Your task to perform on an android device: find photos in the google photos app Image 0: 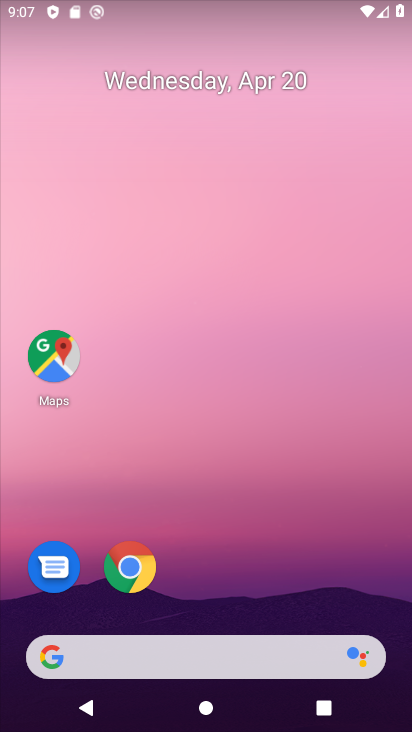
Step 0: drag from (248, 533) to (319, 31)
Your task to perform on an android device: find photos in the google photos app Image 1: 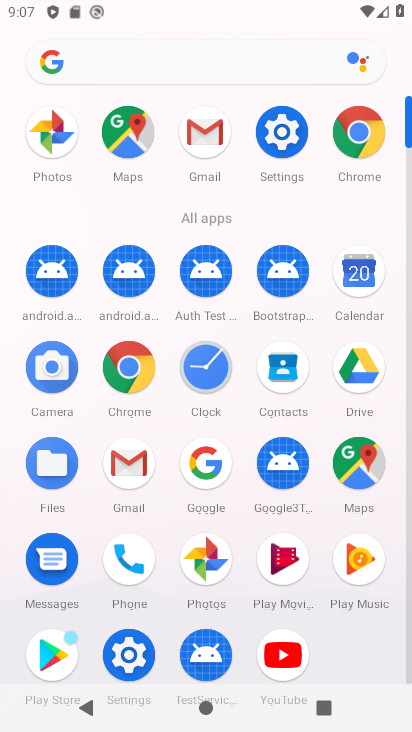
Step 1: click (213, 559)
Your task to perform on an android device: find photos in the google photos app Image 2: 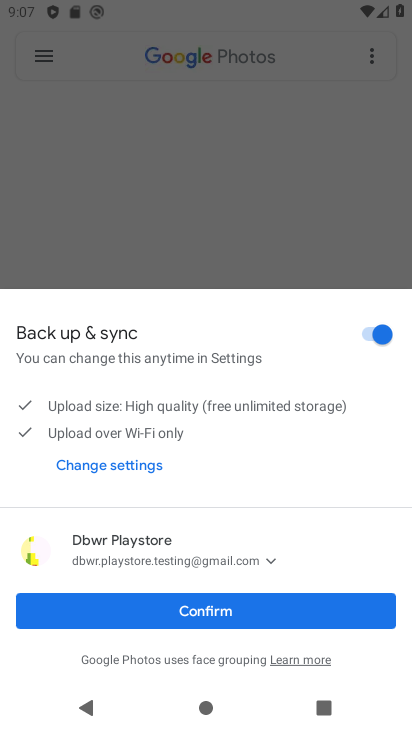
Step 2: click (223, 614)
Your task to perform on an android device: find photos in the google photos app Image 3: 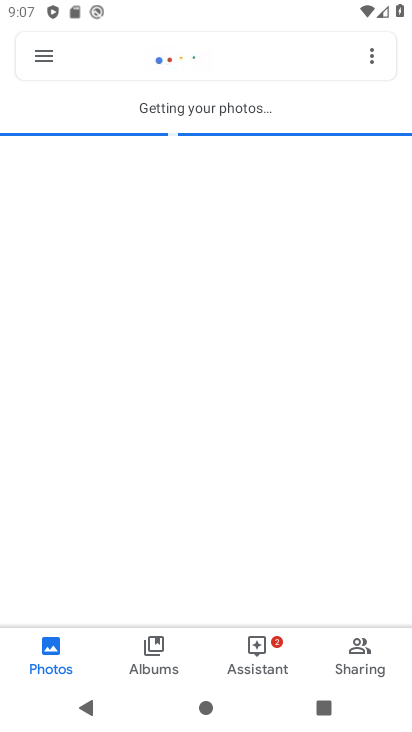
Step 3: click (60, 659)
Your task to perform on an android device: find photos in the google photos app Image 4: 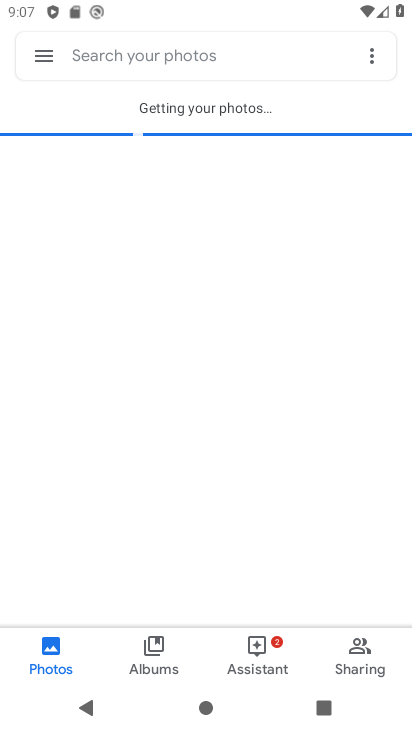
Step 4: task complete